Your task to perform on an android device: Go to ESPN.com Image 0: 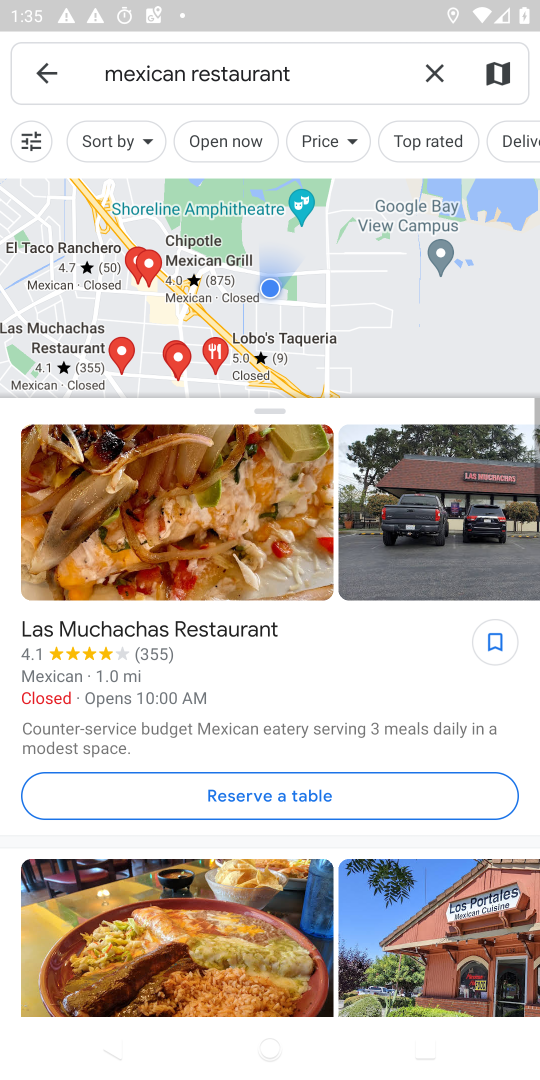
Step 0: press home button
Your task to perform on an android device: Go to ESPN.com Image 1: 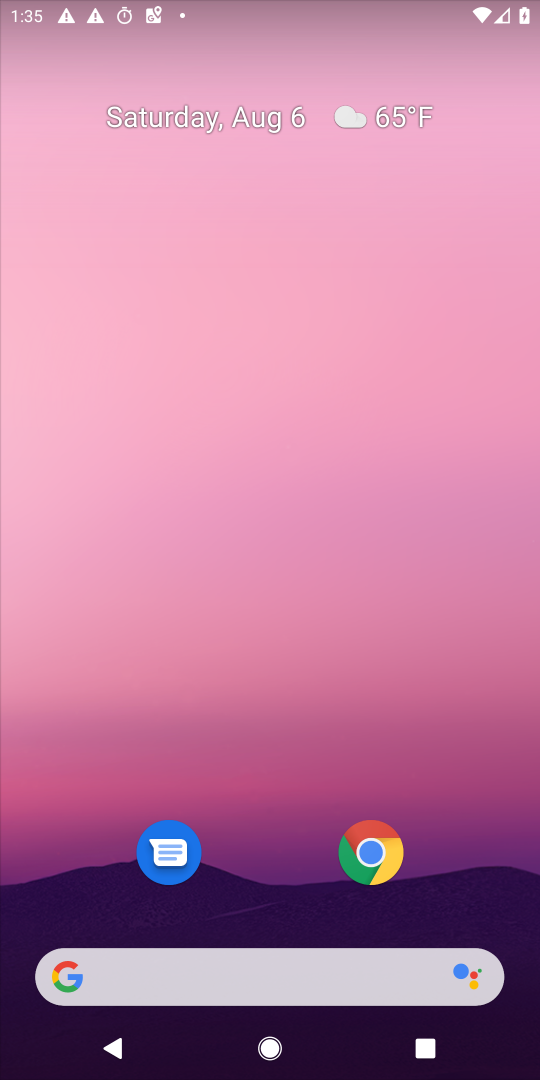
Step 1: drag from (287, 1001) to (294, 56)
Your task to perform on an android device: Go to ESPN.com Image 2: 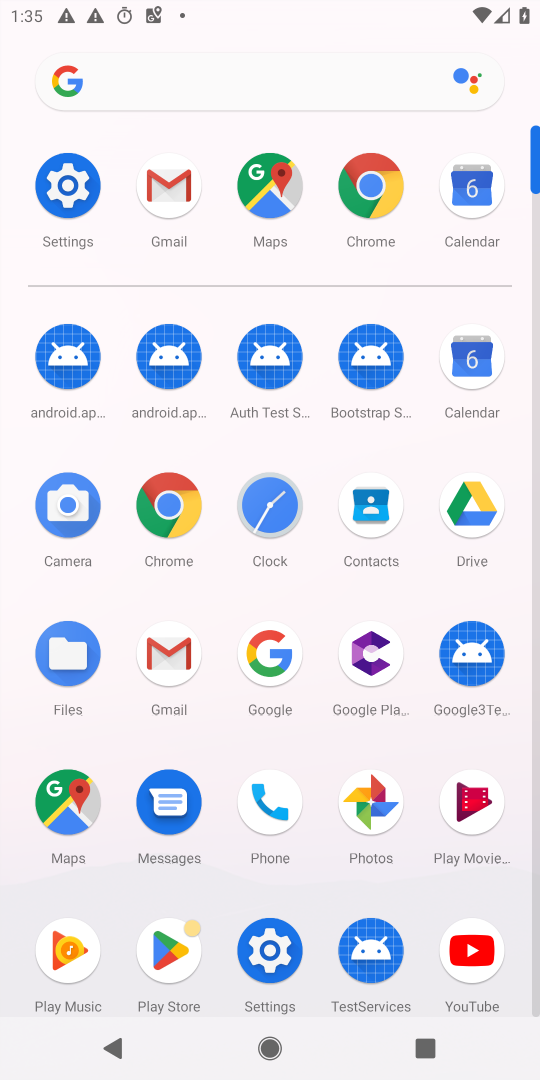
Step 2: click (359, 186)
Your task to perform on an android device: Go to ESPN.com Image 3: 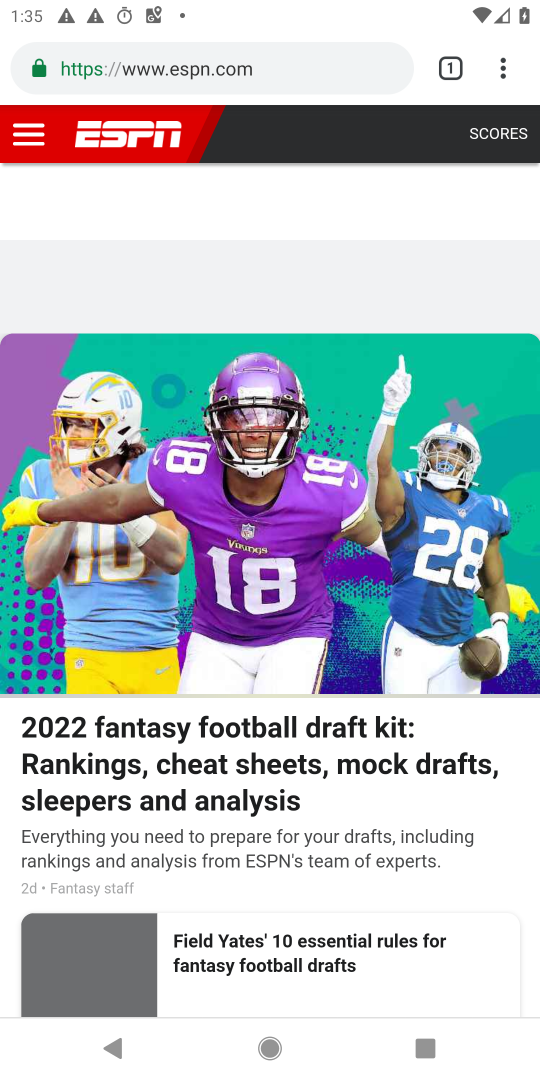
Step 3: click (182, 77)
Your task to perform on an android device: Go to ESPN.com Image 4: 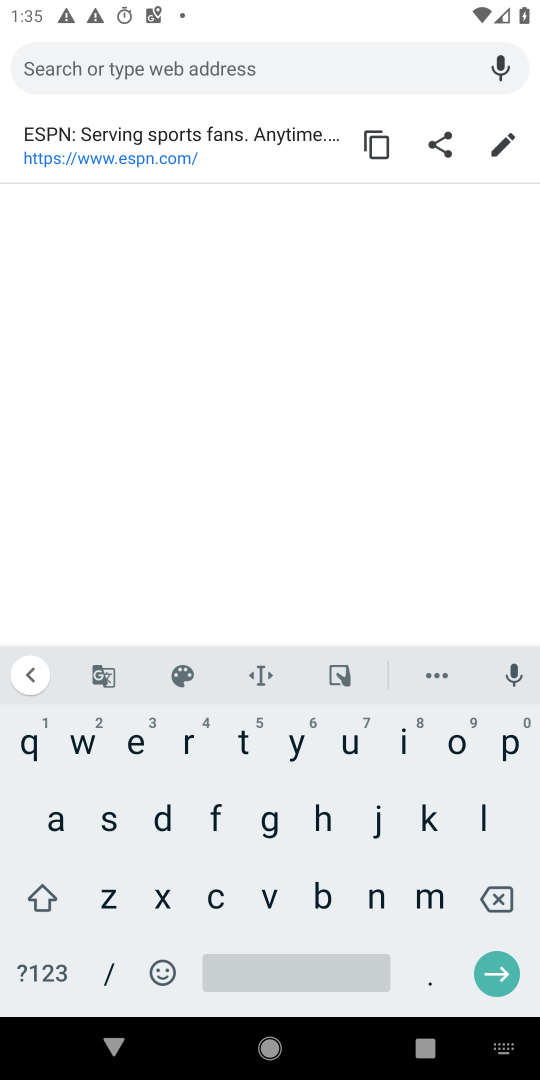
Step 4: click (151, 137)
Your task to perform on an android device: Go to ESPN.com Image 5: 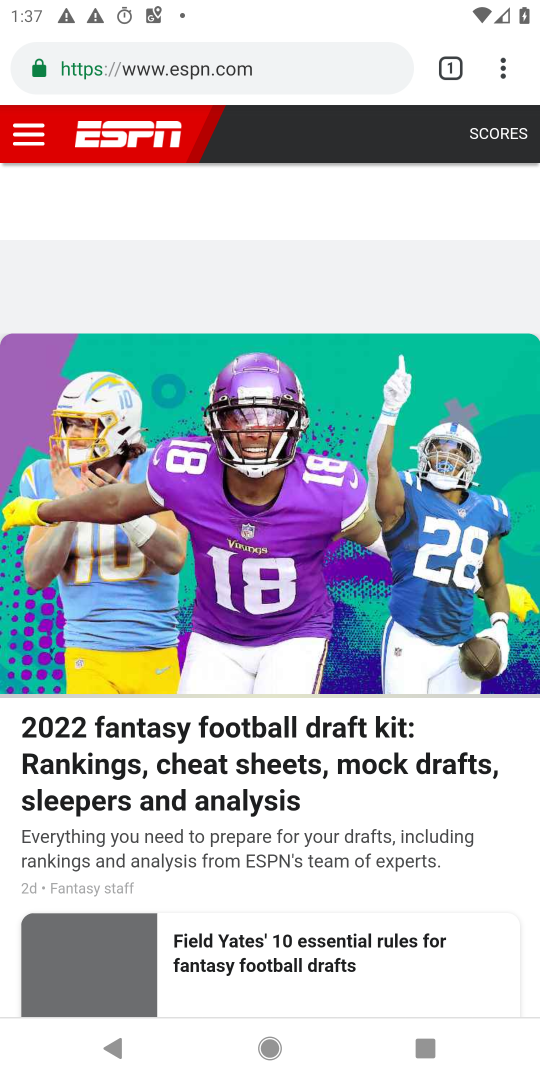
Step 5: task complete